Your task to perform on an android device: turn off smart reply in the gmail app Image 0: 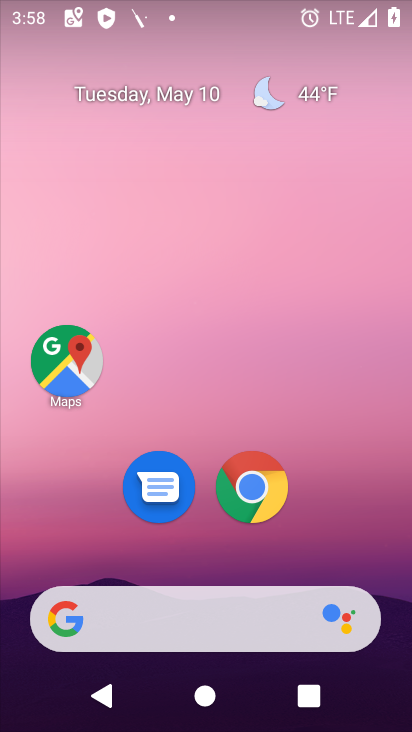
Step 0: drag from (359, 507) to (252, 64)
Your task to perform on an android device: turn off smart reply in the gmail app Image 1: 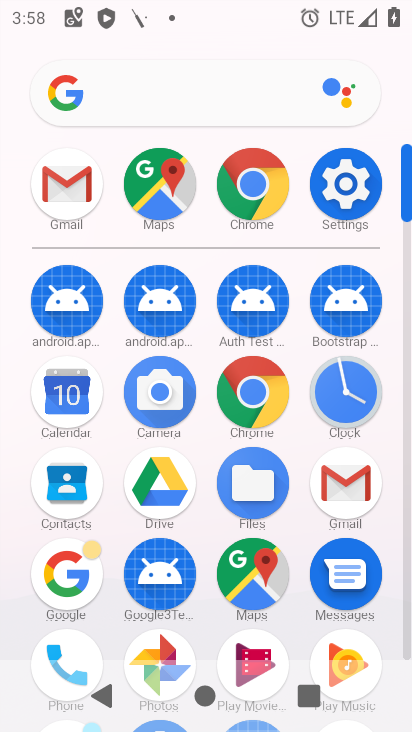
Step 1: click (345, 496)
Your task to perform on an android device: turn off smart reply in the gmail app Image 2: 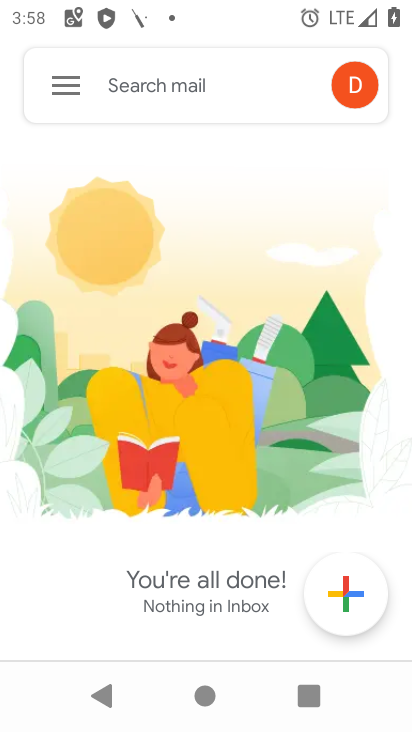
Step 2: click (64, 81)
Your task to perform on an android device: turn off smart reply in the gmail app Image 3: 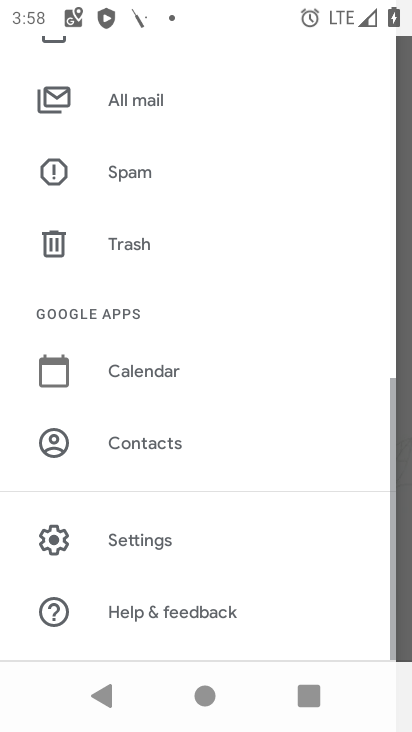
Step 3: click (169, 553)
Your task to perform on an android device: turn off smart reply in the gmail app Image 4: 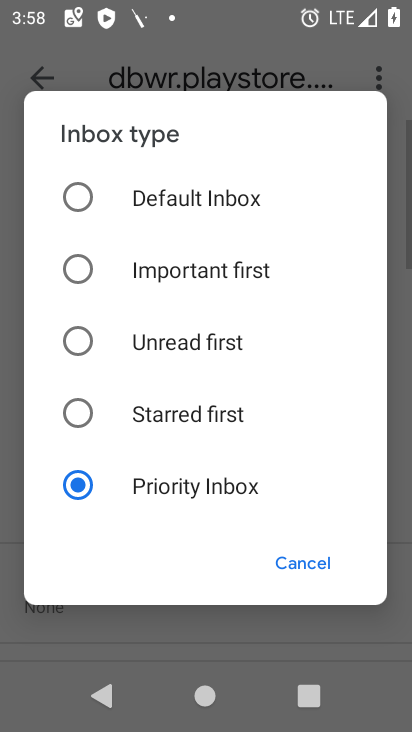
Step 4: click (288, 577)
Your task to perform on an android device: turn off smart reply in the gmail app Image 5: 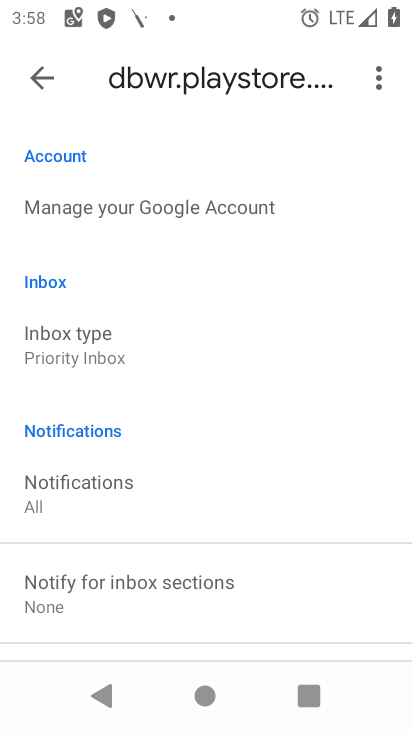
Step 5: drag from (182, 529) to (153, 109)
Your task to perform on an android device: turn off smart reply in the gmail app Image 6: 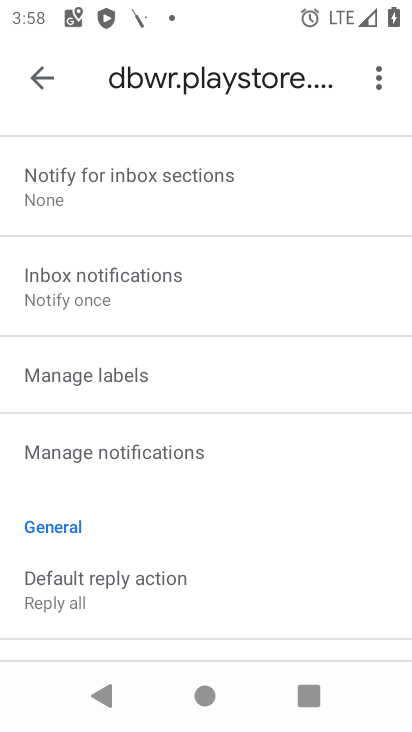
Step 6: drag from (166, 576) to (221, 255)
Your task to perform on an android device: turn off smart reply in the gmail app Image 7: 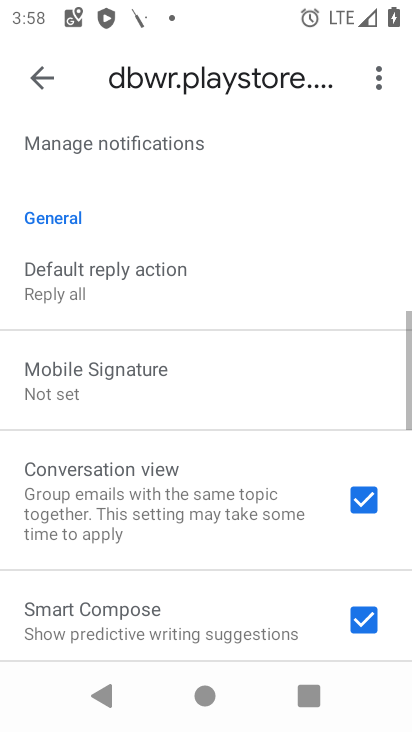
Step 7: drag from (211, 626) to (219, 317)
Your task to perform on an android device: turn off smart reply in the gmail app Image 8: 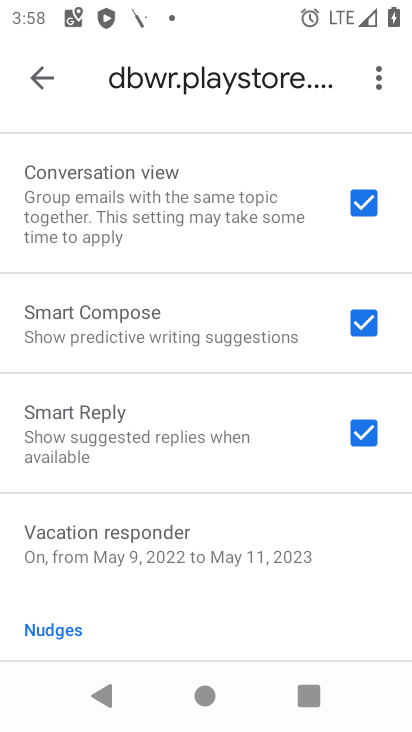
Step 8: drag from (220, 318) to (214, 377)
Your task to perform on an android device: turn off smart reply in the gmail app Image 9: 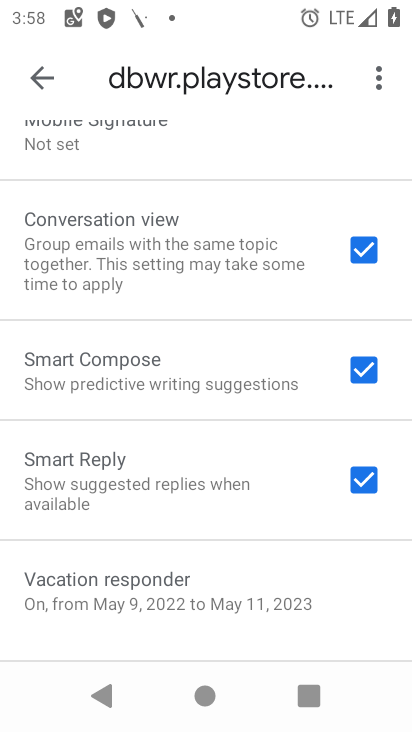
Step 9: click (379, 482)
Your task to perform on an android device: turn off smart reply in the gmail app Image 10: 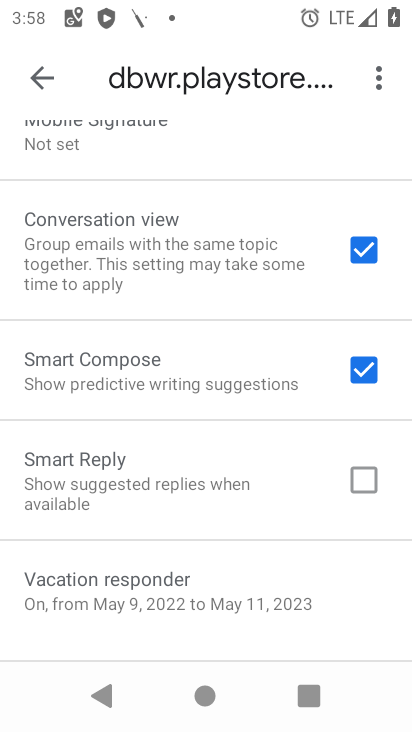
Step 10: task complete